Your task to perform on an android device: clear history in the chrome app Image 0: 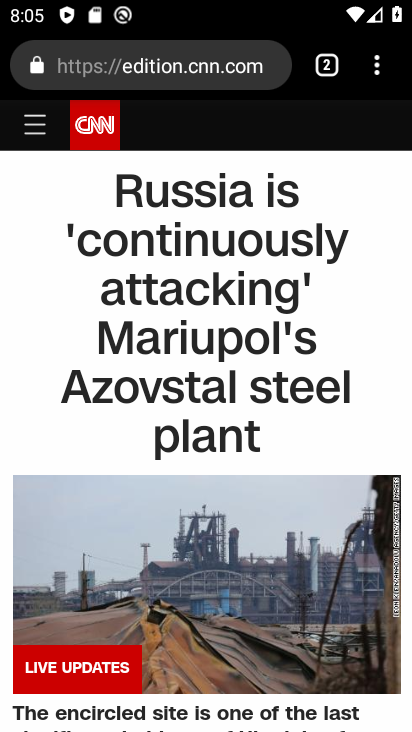
Step 0: press home button
Your task to perform on an android device: clear history in the chrome app Image 1: 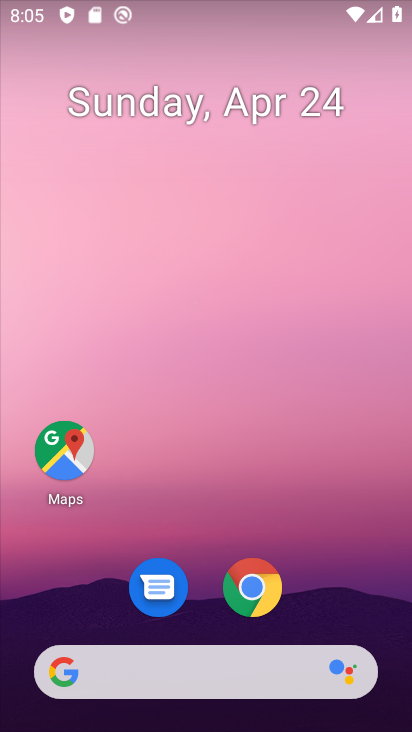
Step 1: drag from (305, 499) to (307, 143)
Your task to perform on an android device: clear history in the chrome app Image 2: 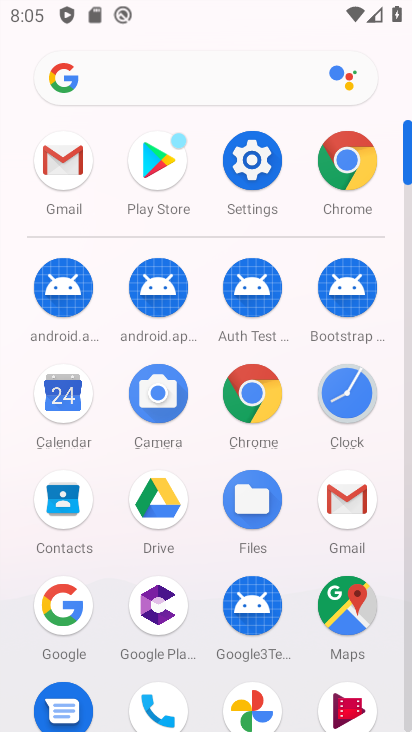
Step 2: click (257, 411)
Your task to perform on an android device: clear history in the chrome app Image 3: 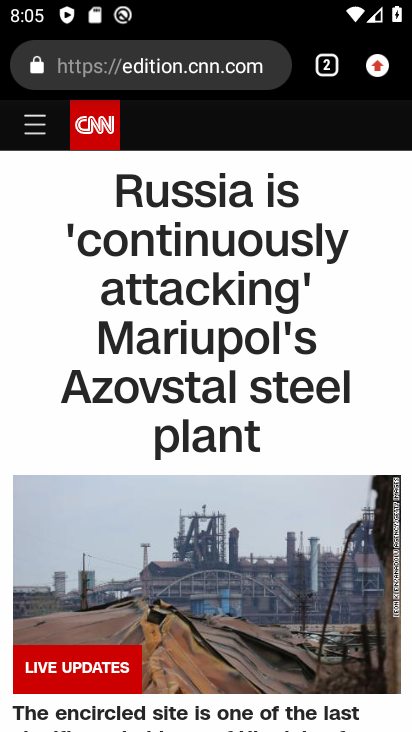
Step 3: click (232, 73)
Your task to perform on an android device: clear history in the chrome app Image 4: 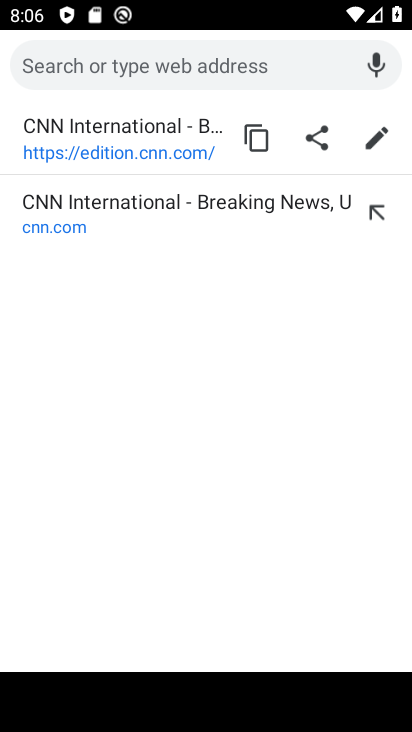
Step 4: press back button
Your task to perform on an android device: clear history in the chrome app Image 5: 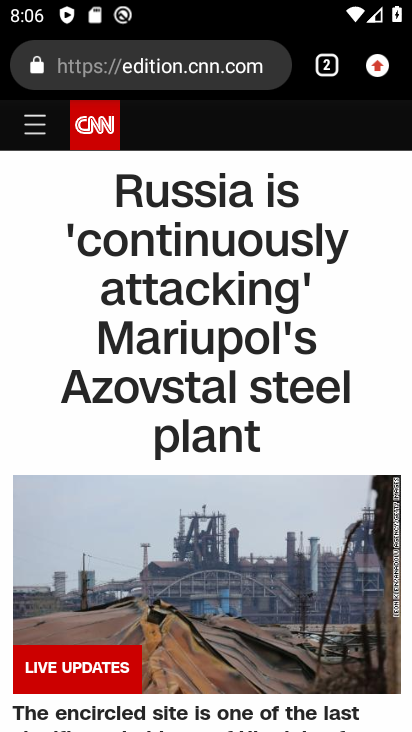
Step 5: drag from (375, 82) to (153, 441)
Your task to perform on an android device: clear history in the chrome app Image 6: 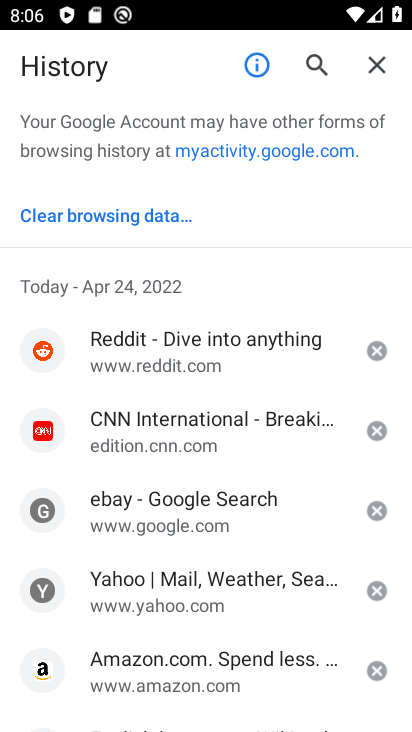
Step 6: click (105, 217)
Your task to perform on an android device: clear history in the chrome app Image 7: 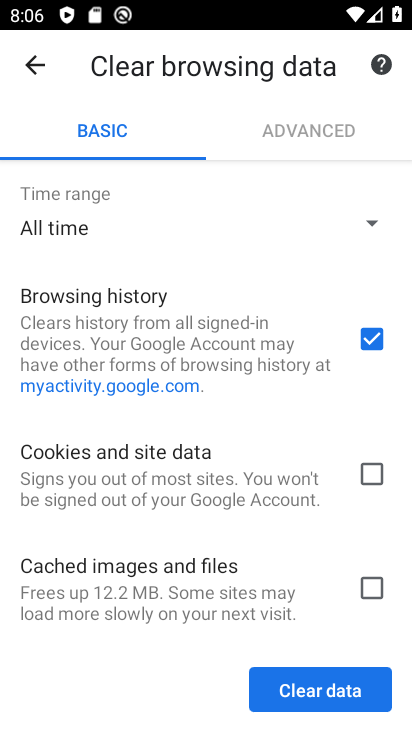
Step 7: click (309, 705)
Your task to perform on an android device: clear history in the chrome app Image 8: 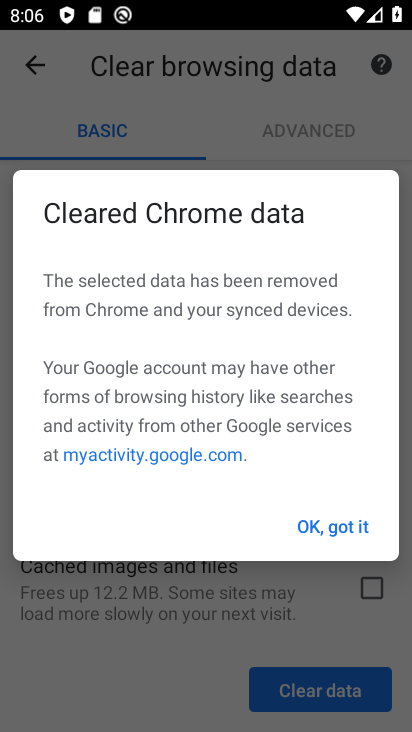
Step 8: click (358, 527)
Your task to perform on an android device: clear history in the chrome app Image 9: 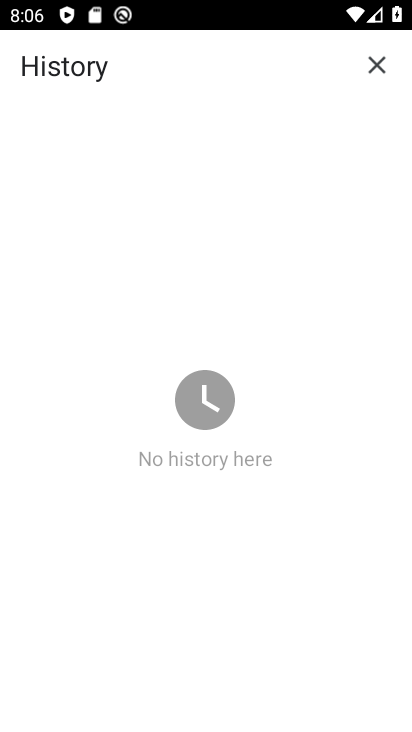
Step 9: task complete